Your task to perform on an android device: Do I have any events tomorrow? Image 0: 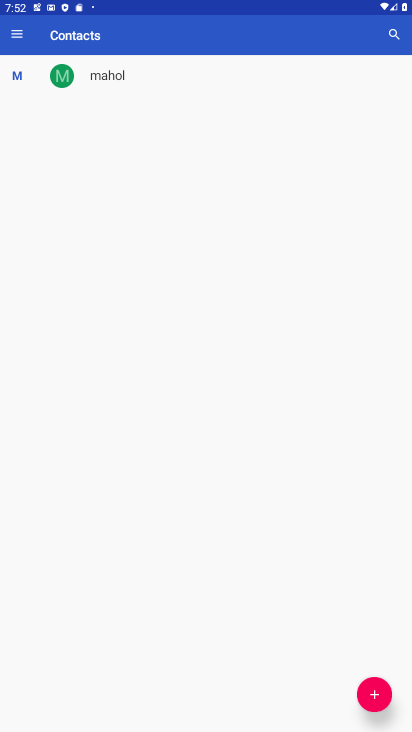
Step 0: drag from (317, 534) to (257, 100)
Your task to perform on an android device: Do I have any events tomorrow? Image 1: 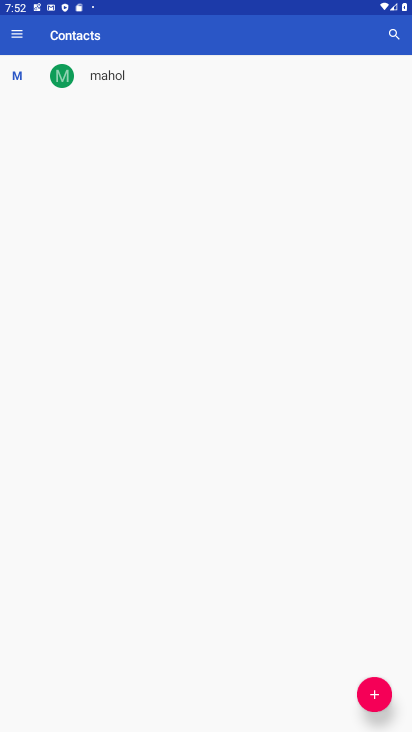
Step 1: press back button
Your task to perform on an android device: Do I have any events tomorrow? Image 2: 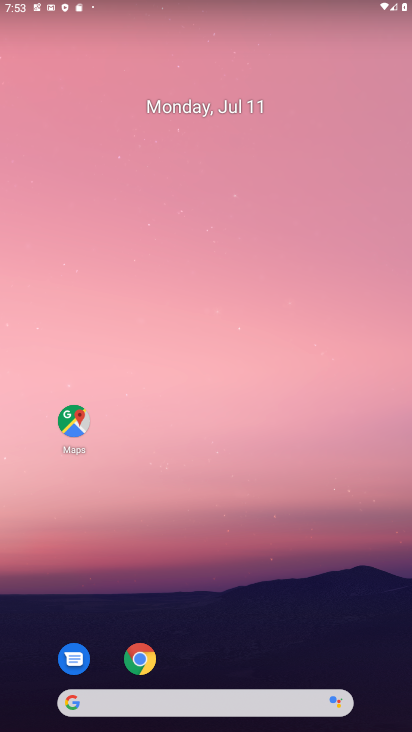
Step 2: drag from (129, 11) to (179, 14)
Your task to perform on an android device: Do I have any events tomorrow? Image 3: 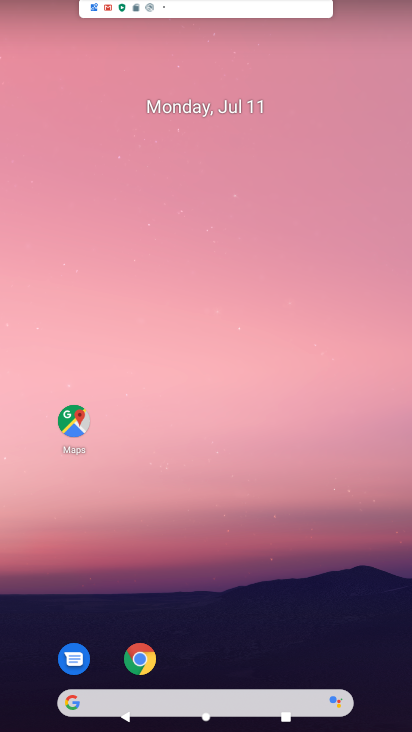
Step 3: drag from (207, 600) to (226, 205)
Your task to perform on an android device: Do I have any events tomorrow? Image 4: 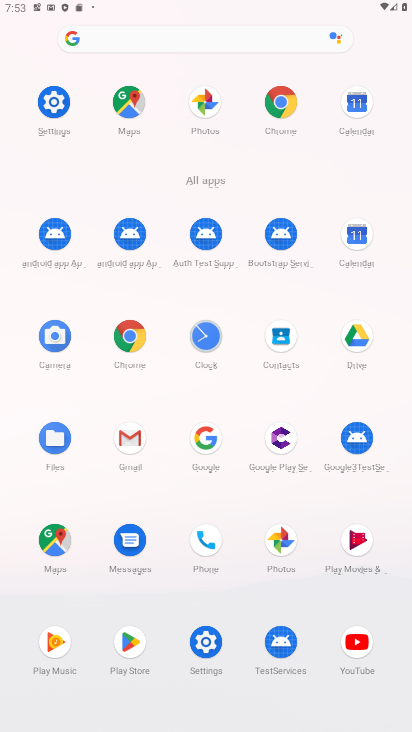
Step 4: click (357, 96)
Your task to perform on an android device: Do I have any events tomorrow? Image 5: 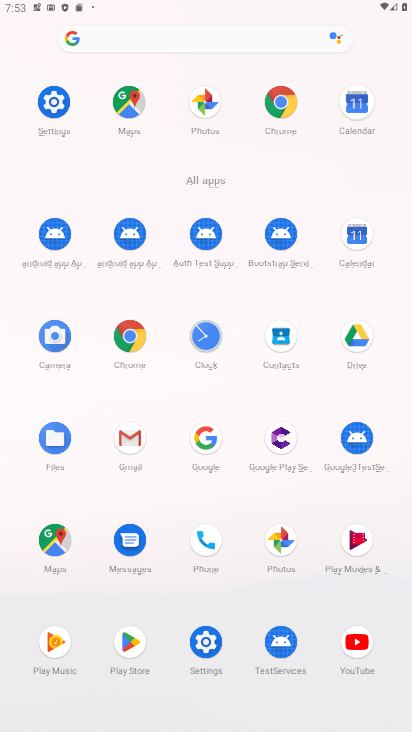
Step 5: click (357, 98)
Your task to perform on an android device: Do I have any events tomorrow? Image 6: 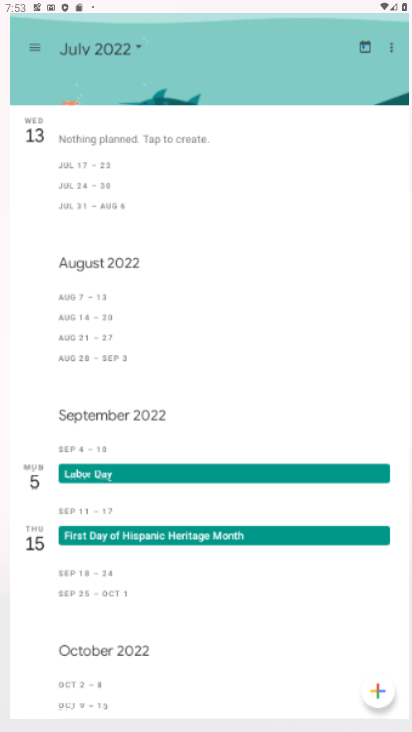
Step 6: click (361, 96)
Your task to perform on an android device: Do I have any events tomorrow? Image 7: 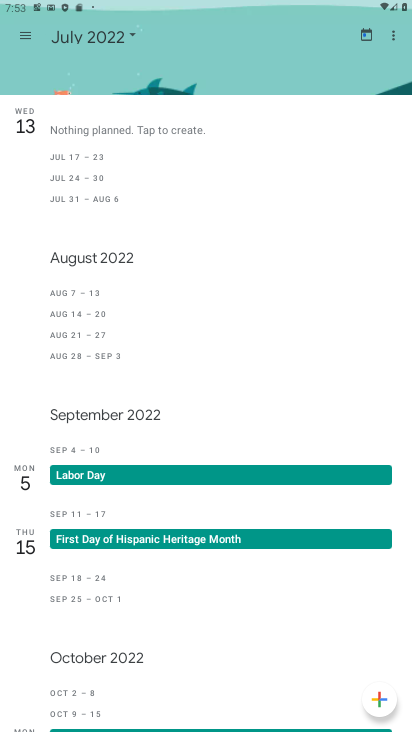
Step 7: click (132, 35)
Your task to perform on an android device: Do I have any events tomorrow? Image 8: 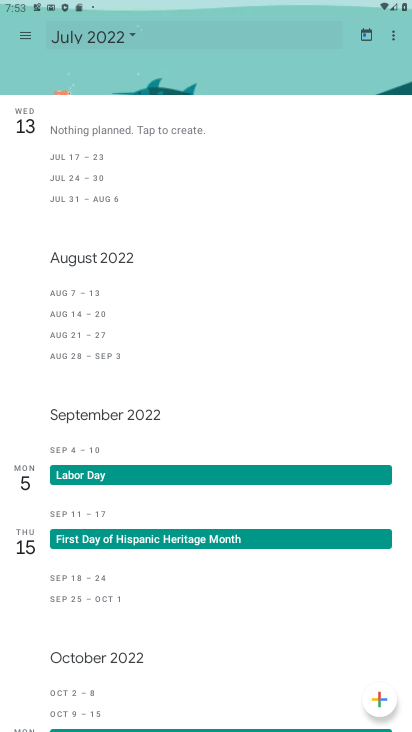
Step 8: click (136, 36)
Your task to perform on an android device: Do I have any events tomorrow? Image 9: 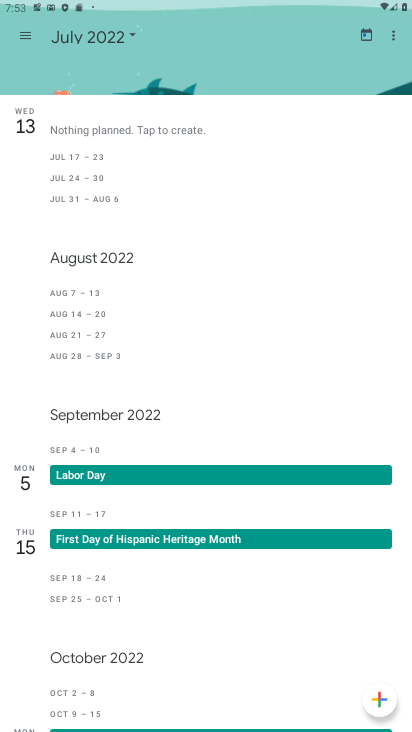
Step 9: click (130, 37)
Your task to perform on an android device: Do I have any events tomorrow? Image 10: 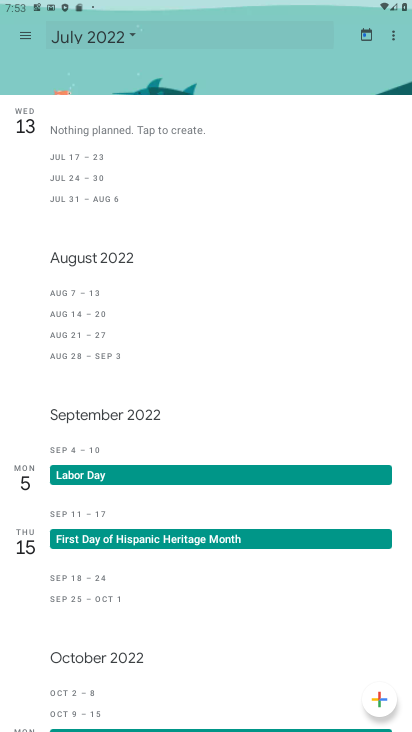
Step 10: click (129, 37)
Your task to perform on an android device: Do I have any events tomorrow? Image 11: 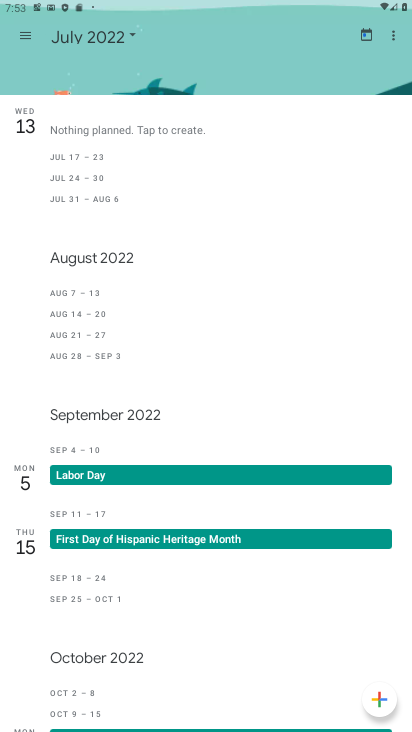
Step 11: click (135, 31)
Your task to perform on an android device: Do I have any events tomorrow? Image 12: 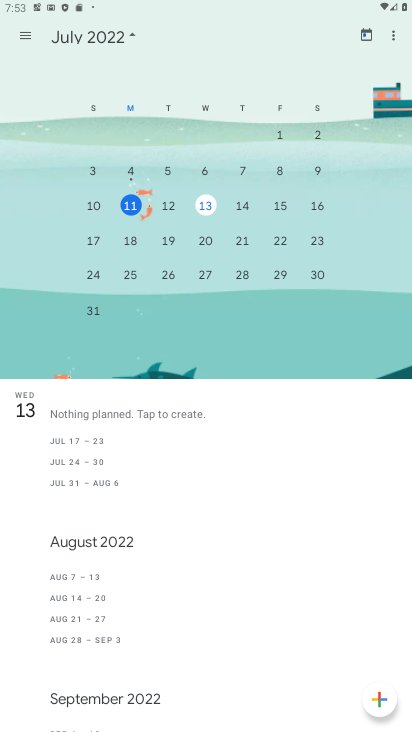
Step 12: click (207, 205)
Your task to perform on an android device: Do I have any events tomorrow? Image 13: 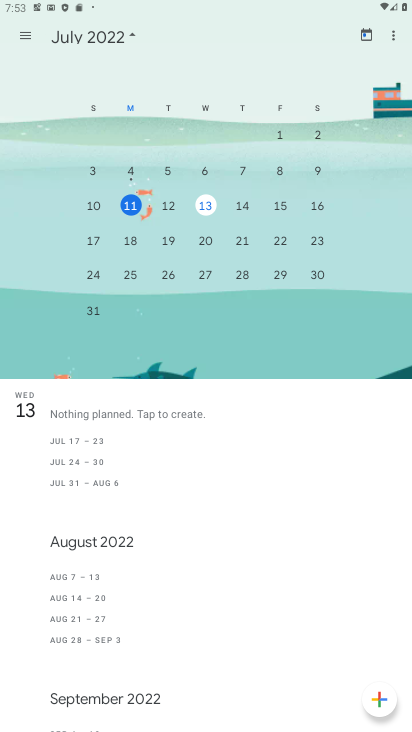
Step 13: click (204, 204)
Your task to perform on an android device: Do I have any events tomorrow? Image 14: 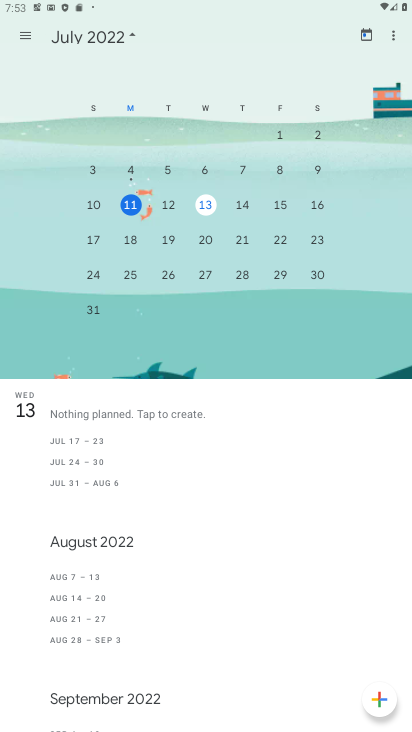
Step 14: click (211, 204)
Your task to perform on an android device: Do I have any events tomorrow? Image 15: 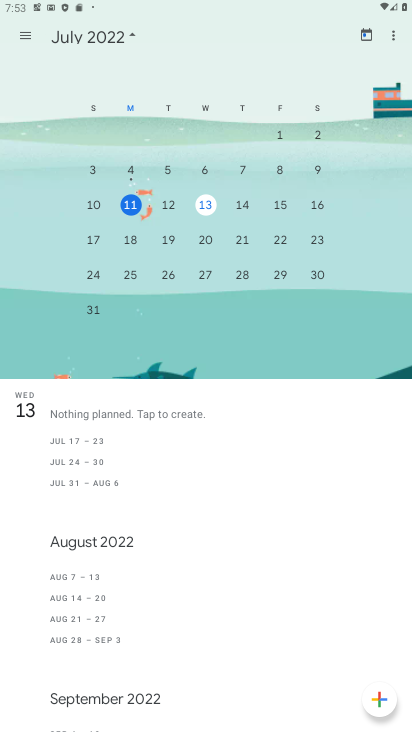
Step 15: click (211, 203)
Your task to perform on an android device: Do I have any events tomorrow? Image 16: 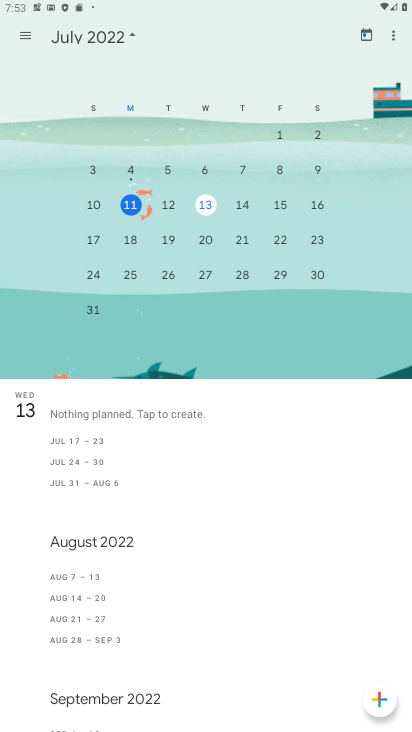
Step 16: click (213, 205)
Your task to perform on an android device: Do I have any events tomorrow? Image 17: 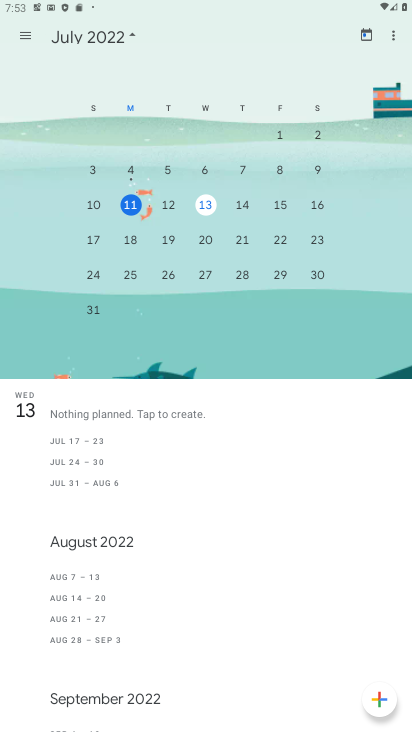
Step 17: click (200, 200)
Your task to perform on an android device: Do I have any events tomorrow? Image 18: 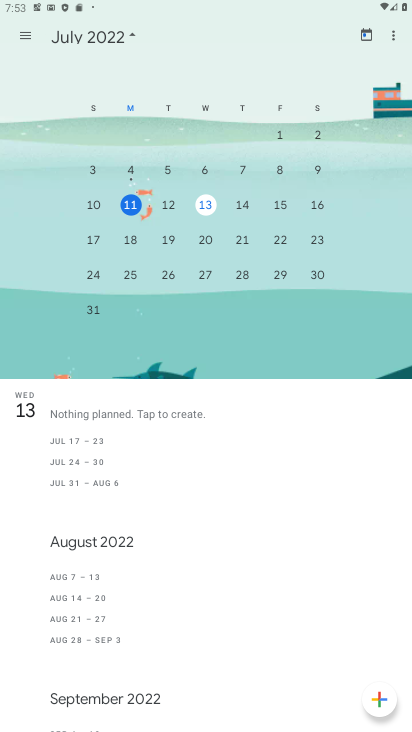
Step 18: click (205, 197)
Your task to perform on an android device: Do I have any events tomorrow? Image 19: 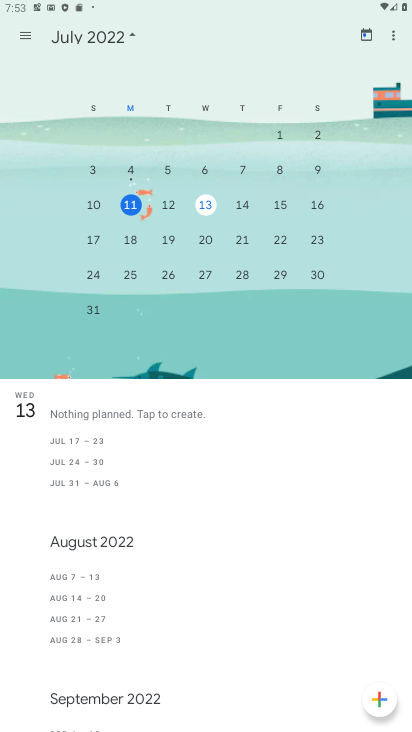
Step 19: click (207, 197)
Your task to perform on an android device: Do I have any events tomorrow? Image 20: 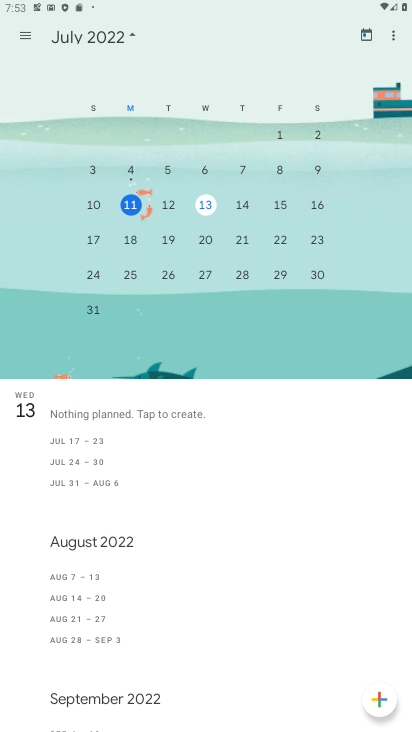
Step 20: click (207, 197)
Your task to perform on an android device: Do I have any events tomorrow? Image 21: 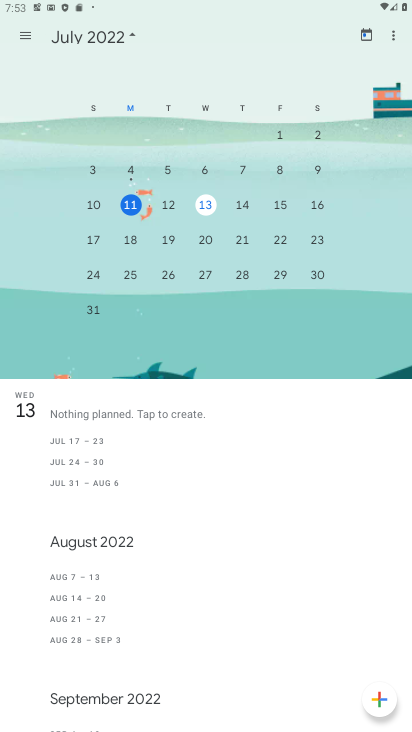
Step 21: click (240, 201)
Your task to perform on an android device: Do I have any events tomorrow? Image 22: 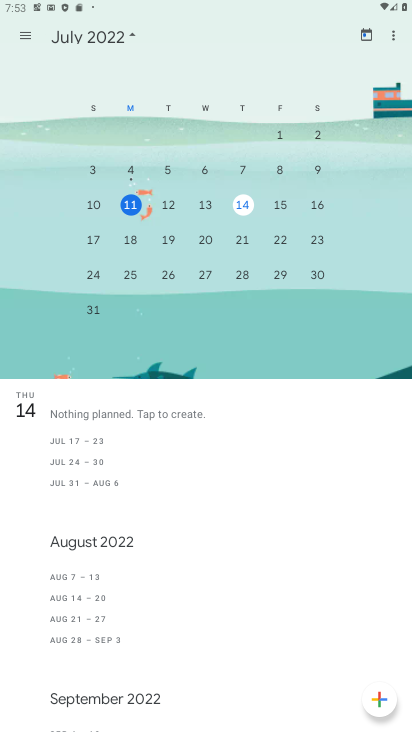
Step 22: click (192, 205)
Your task to perform on an android device: Do I have any events tomorrow? Image 23: 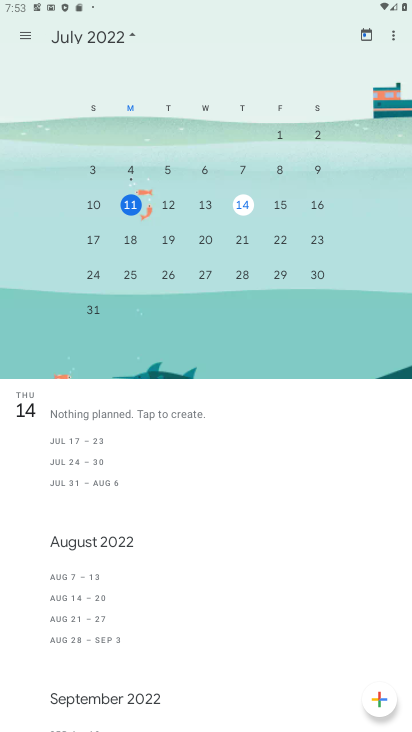
Step 23: click (192, 205)
Your task to perform on an android device: Do I have any events tomorrow? Image 24: 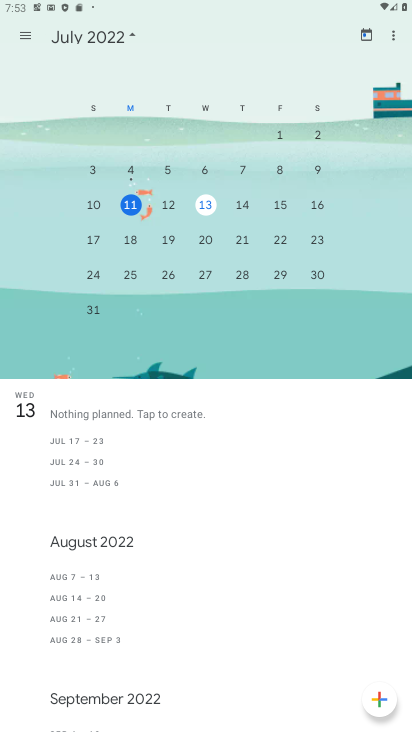
Step 24: click (198, 202)
Your task to perform on an android device: Do I have any events tomorrow? Image 25: 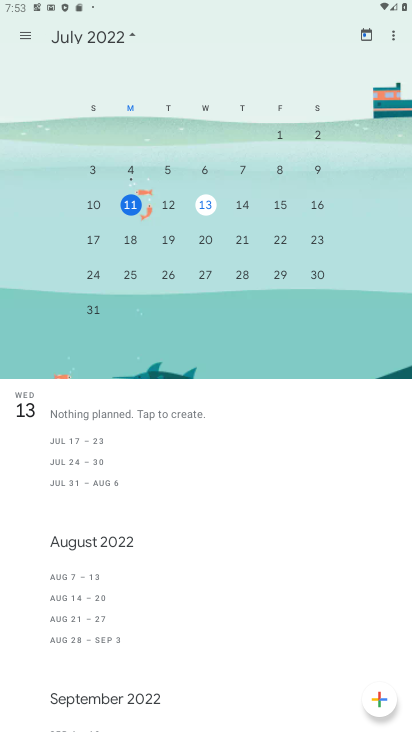
Step 25: click (195, 209)
Your task to perform on an android device: Do I have any events tomorrow? Image 26: 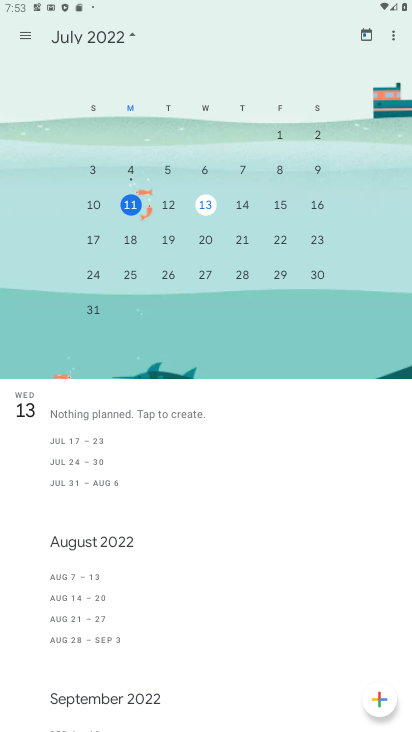
Step 26: click (207, 201)
Your task to perform on an android device: Do I have any events tomorrow? Image 27: 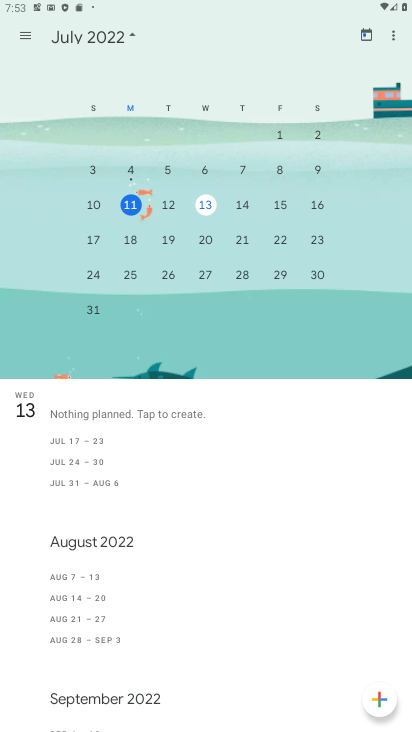
Step 27: click (207, 201)
Your task to perform on an android device: Do I have any events tomorrow? Image 28: 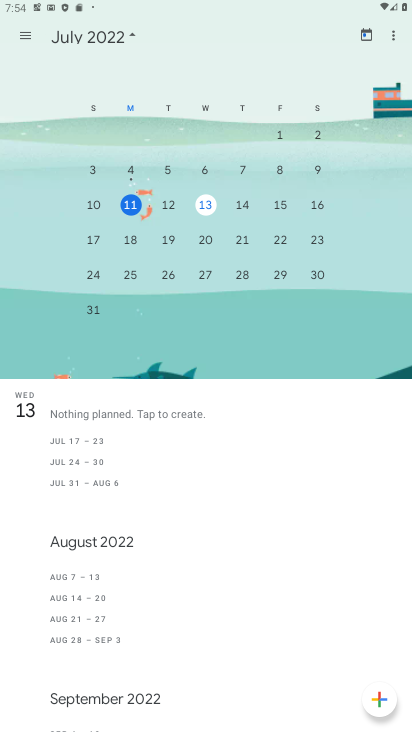
Step 28: task complete